Your task to perform on an android device: turn on javascript in the chrome app Image 0: 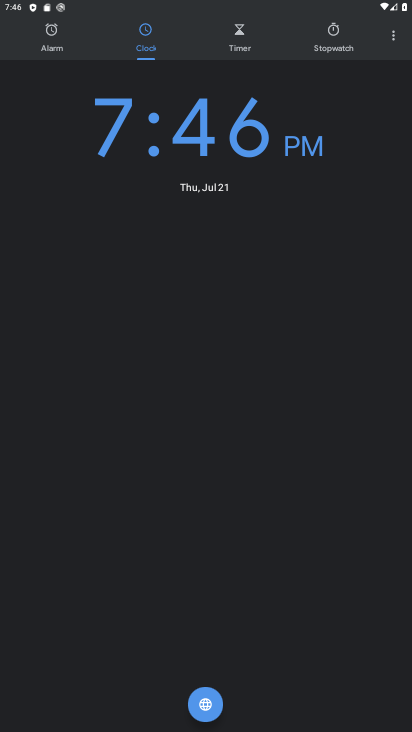
Step 0: press home button
Your task to perform on an android device: turn on javascript in the chrome app Image 1: 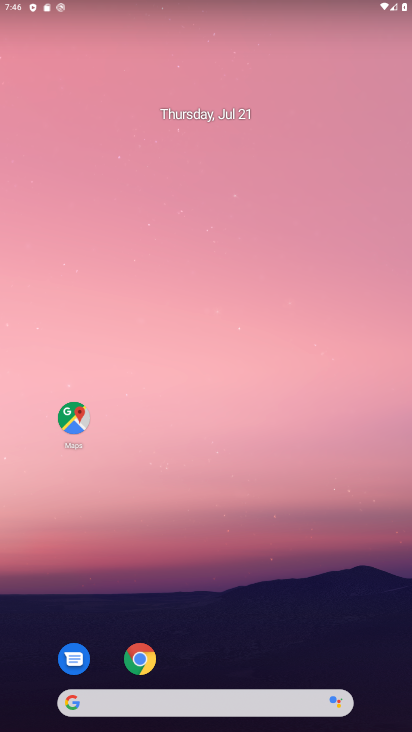
Step 1: click (143, 666)
Your task to perform on an android device: turn on javascript in the chrome app Image 2: 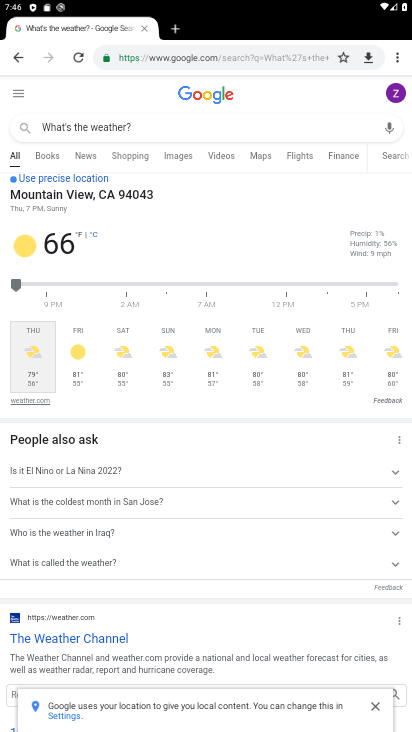
Step 2: click (396, 57)
Your task to perform on an android device: turn on javascript in the chrome app Image 3: 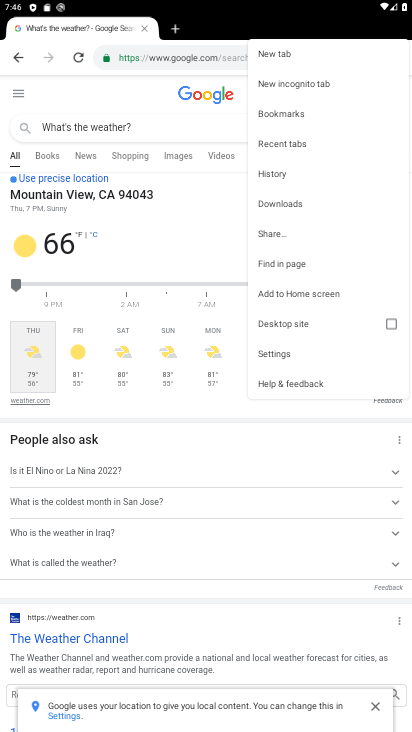
Step 3: click (294, 361)
Your task to perform on an android device: turn on javascript in the chrome app Image 4: 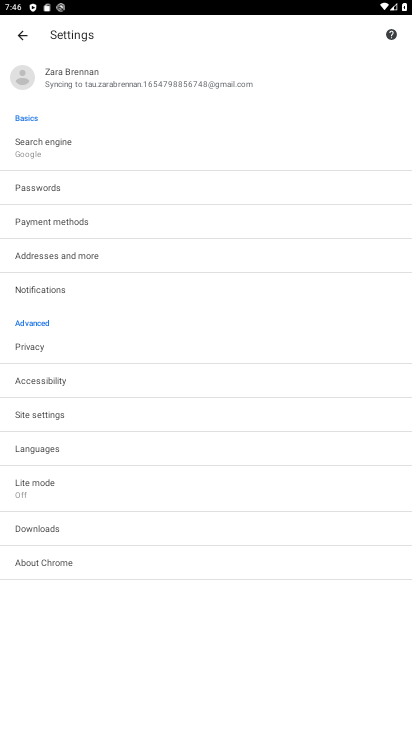
Step 4: click (104, 421)
Your task to perform on an android device: turn on javascript in the chrome app Image 5: 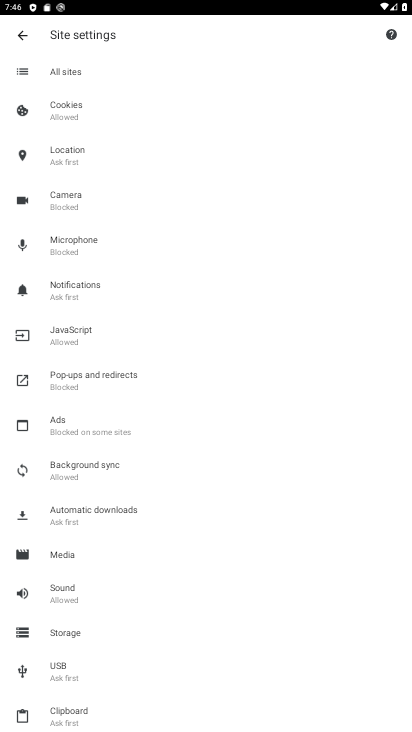
Step 5: click (77, 336)
Your task to perform on an android device: turn on javascript in the chrome app Image 6: 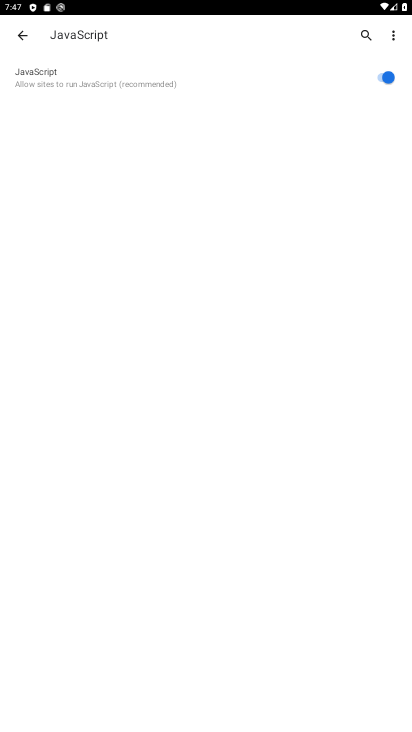
Step 6: task complete